Your task to perform on an android device: Go to Reddit.com Image 0: 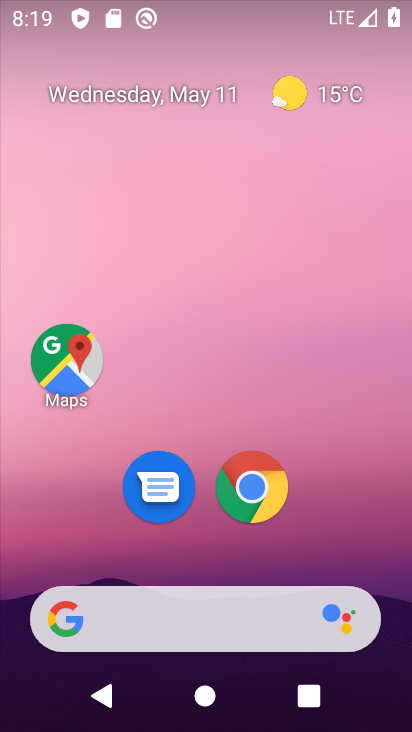
Step 0: drag from (235, 641) to (177, 189)
Your task to perform on an android device: Go to Reddit.com Image 1: 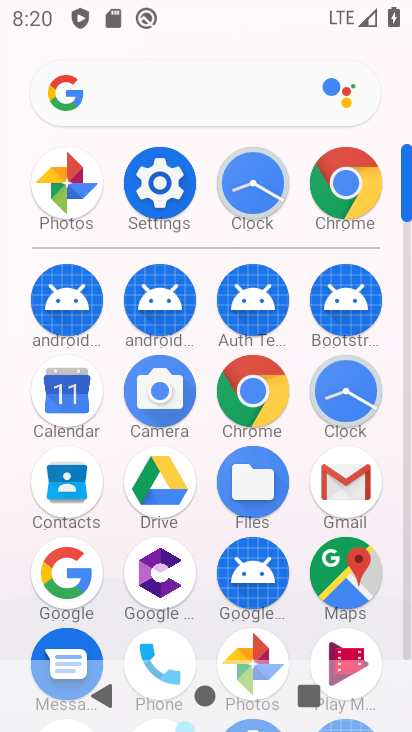
Step 1: click (336, 183)
Your task to perform on an android device: Go to Reddit.com Image 2: 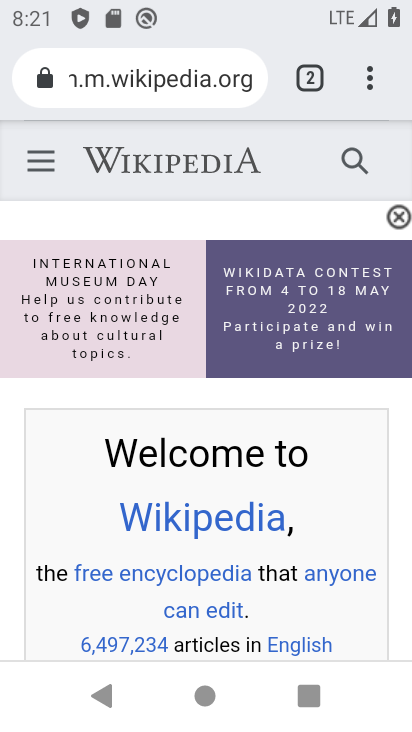
Step 2: click (194, 91)
Your task to perform on an android device: Go to Reddit.com Image 3: 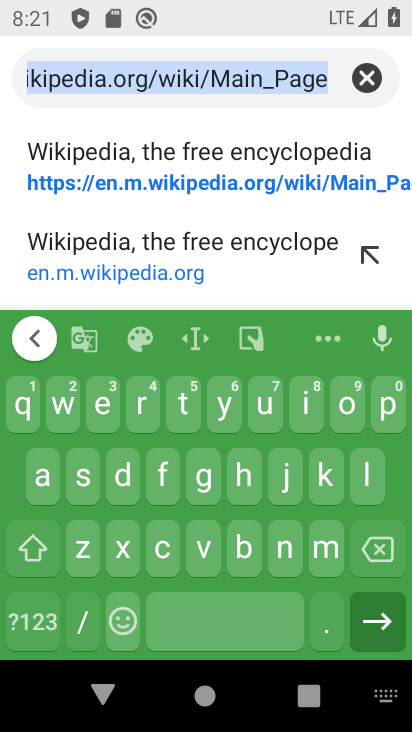
Step 3: click (357, 81)
Your task to perform on an android device: Go to Reddit.com Image 4: 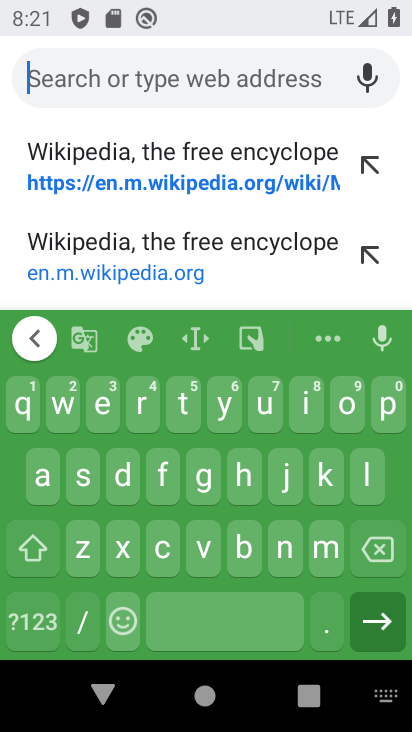
Step 4: click (130, 412)
Your task to perform on an android device: Go to Reddit.com Image 5: 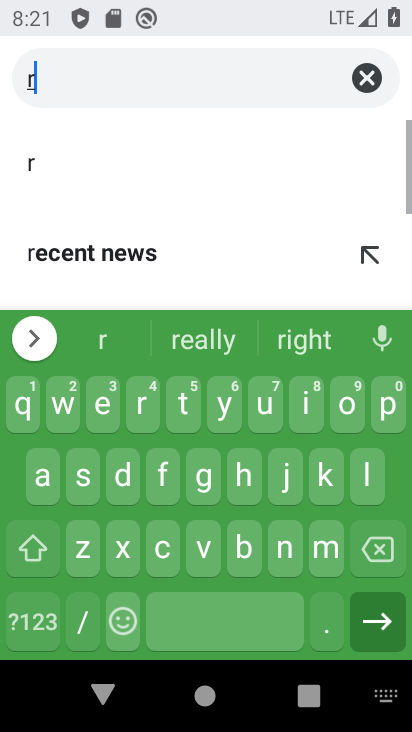
Step 5: click (105, 412)
Your task to perform on an android device: Go to Reddit.com Image 6: 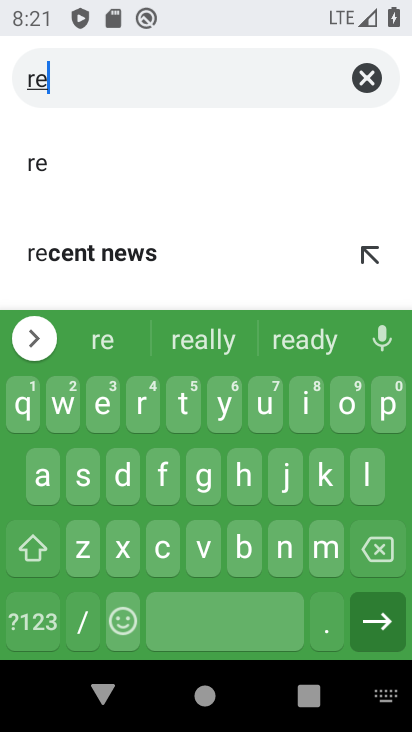
Step 6: click (123, 476)
Your task to perform on an android device: Go to Reddit.com Image 7: 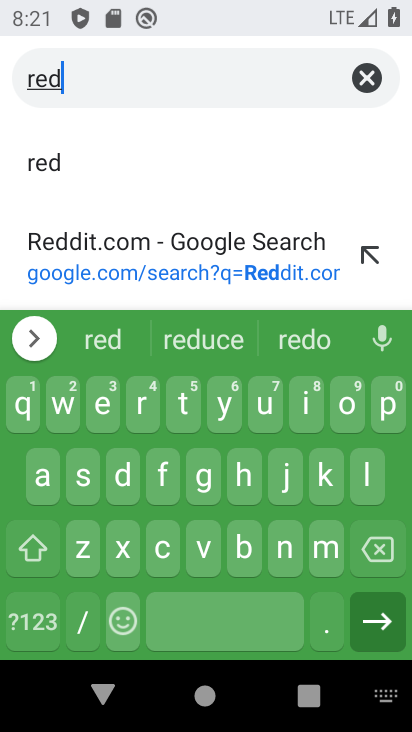
Step 7: click (136, 225)
Your task to perform on an android device: Go to Reddit.com Image 8: 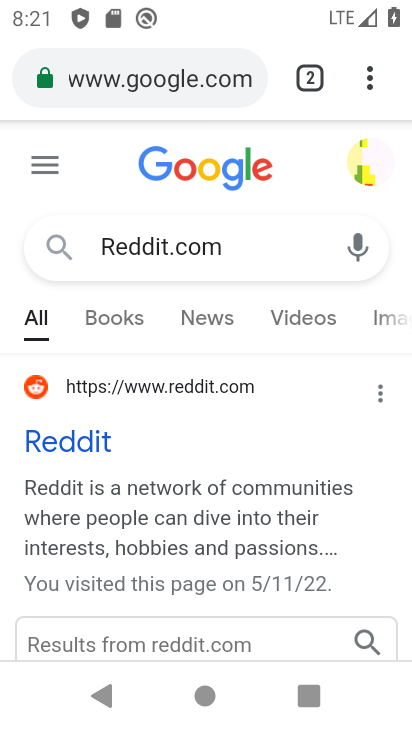
Step 8: click (80, 435)
Your task to perform on an android device: Go to Reddit.com Image 9: 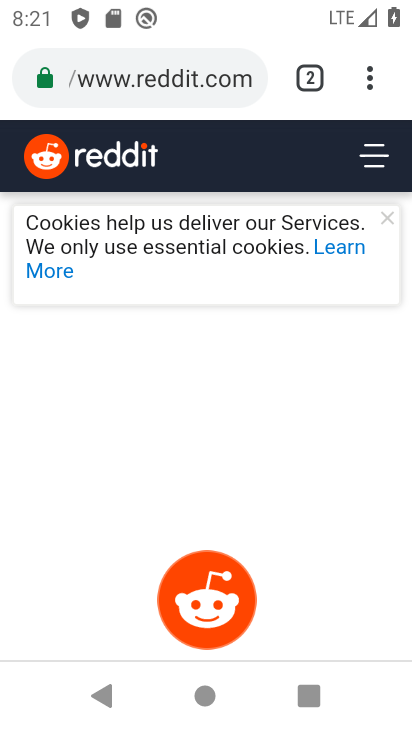
Step 9: task complete